Your task to perform on an android device: Go to Yahoo.com Image 0: 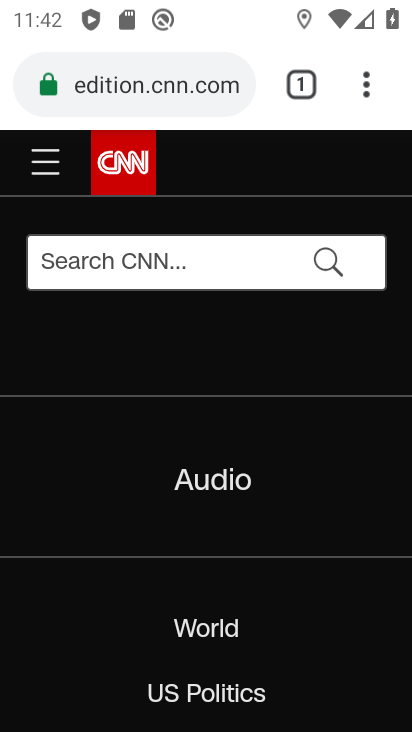
Step 0: press home button
Your task to perform on an android device: Go to Yahoo.com Image 1: 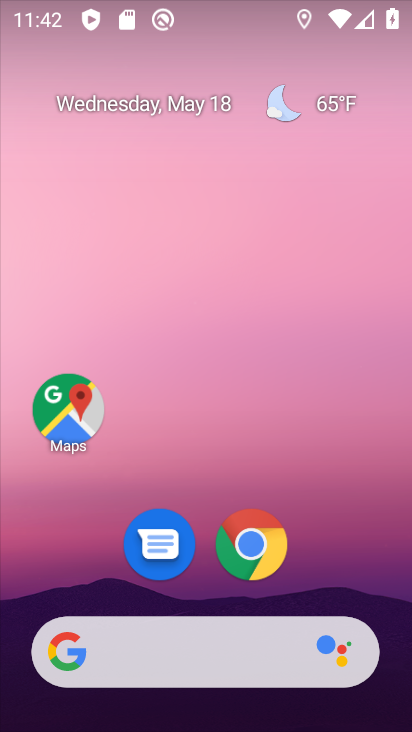
Step 1: drag from (342, 553) to (333, 132)
Your task to perform on an android device: Go to Yahoo.com Image 2: 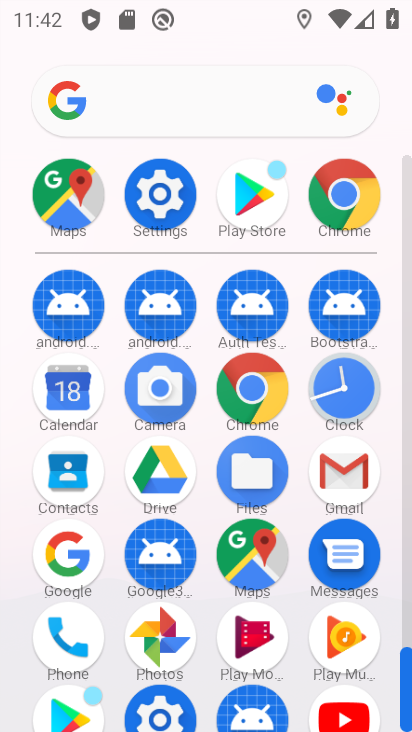
Step 2: click (256, 396)
Your task to perform on an android device: Go to Yahoo.com Image 3: 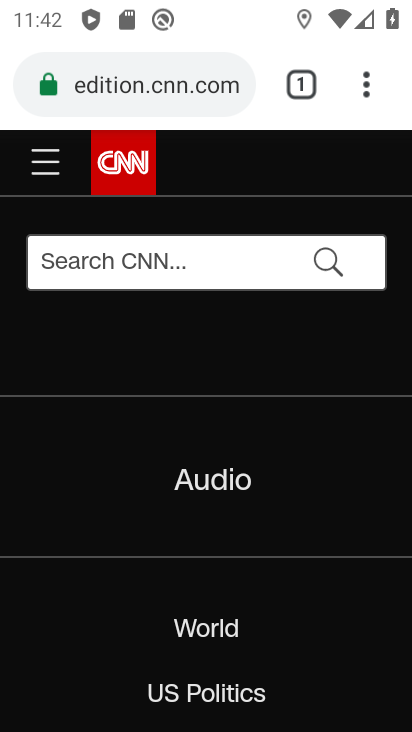
Step 3: press back button
Your task to perform on an android device: Go to Yahoo.com Image 4: 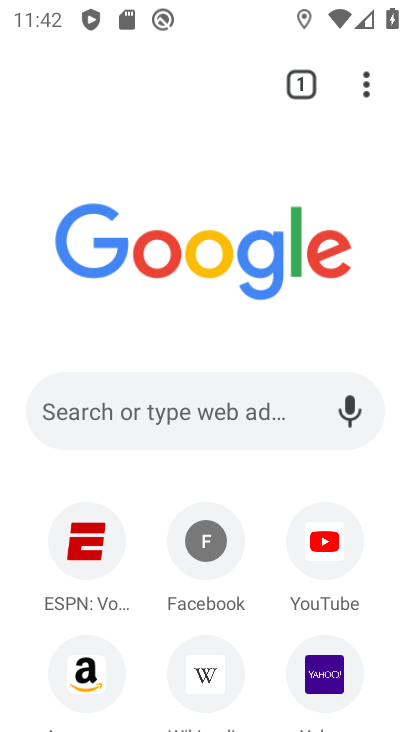
Step 4: drag from (390, 601) to (383, 277)
Your task to perform on an android device: Go to Yahoo.com Image 5: 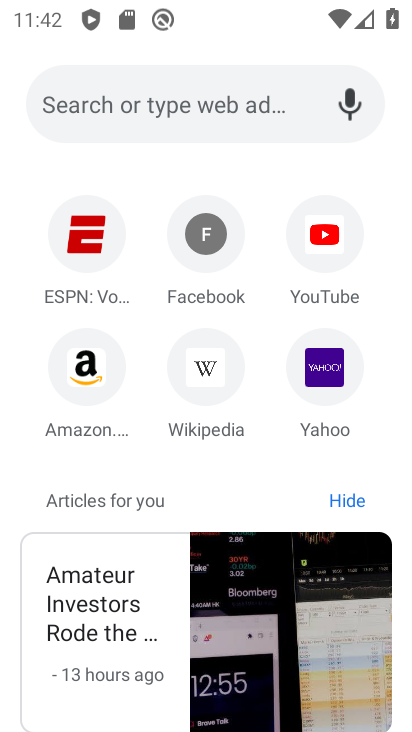
Step 5: click (324, 371)
Your task to perform on an android device: Go to Yahoo.com Image 6: 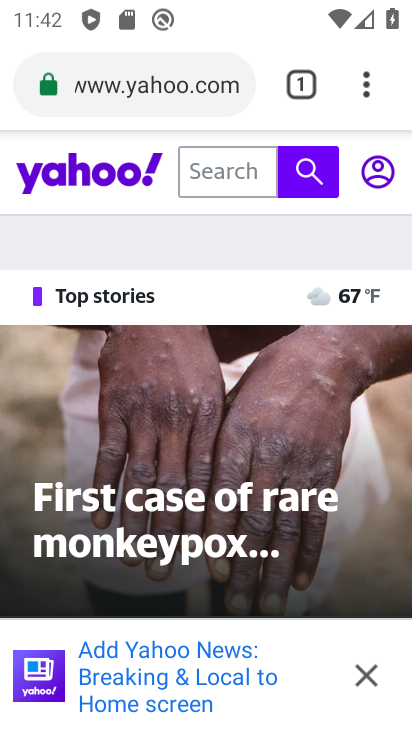
Step 6: task complete